Your task to perform on an android device: What's the weather? Image 0: 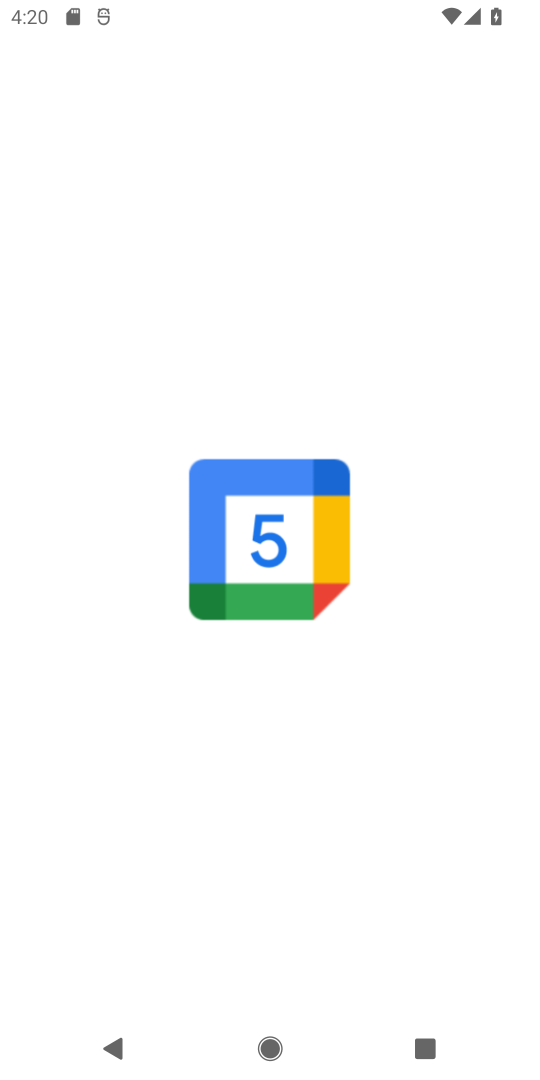
Step 0: press home button
Your task to perform on an android device: What's the weather? Image 1: 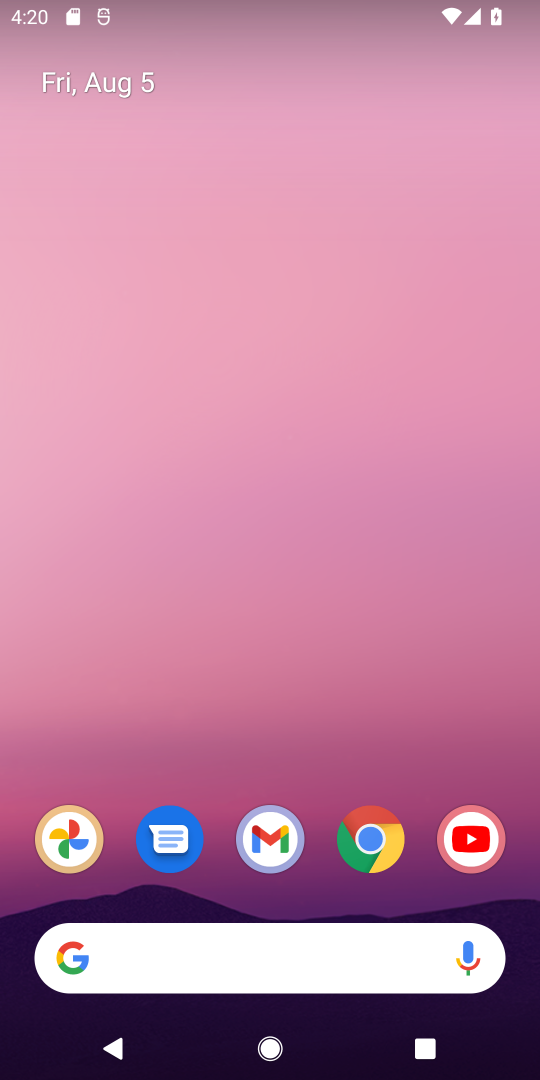
Step 1: drag from (304, 886) to (318, 197)
Your task to perform on an android device: What's the weather? Image 2: 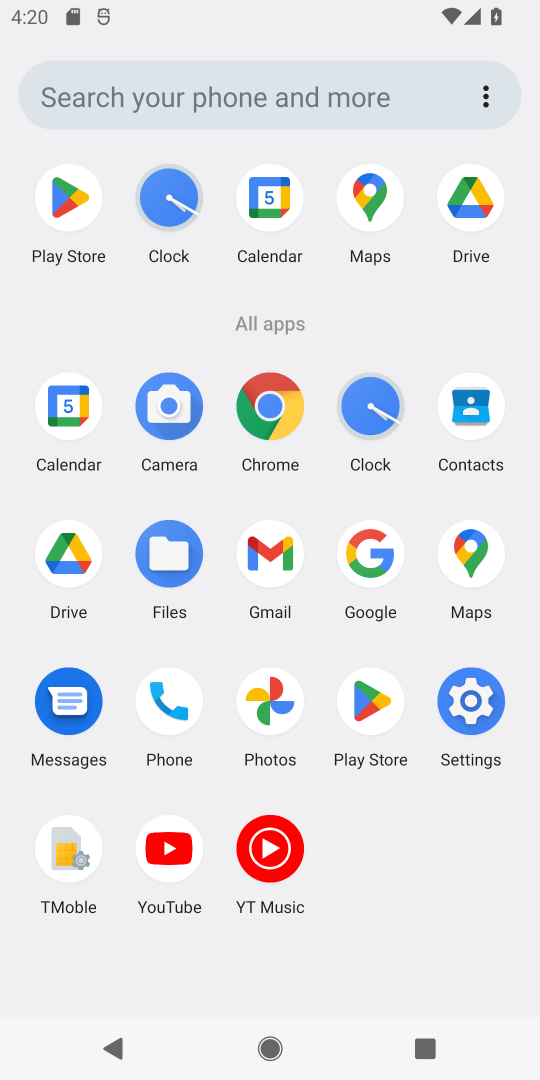
Step 2: click (381, 562)
Your task to perform on an android device: What's the weather? Image 3: 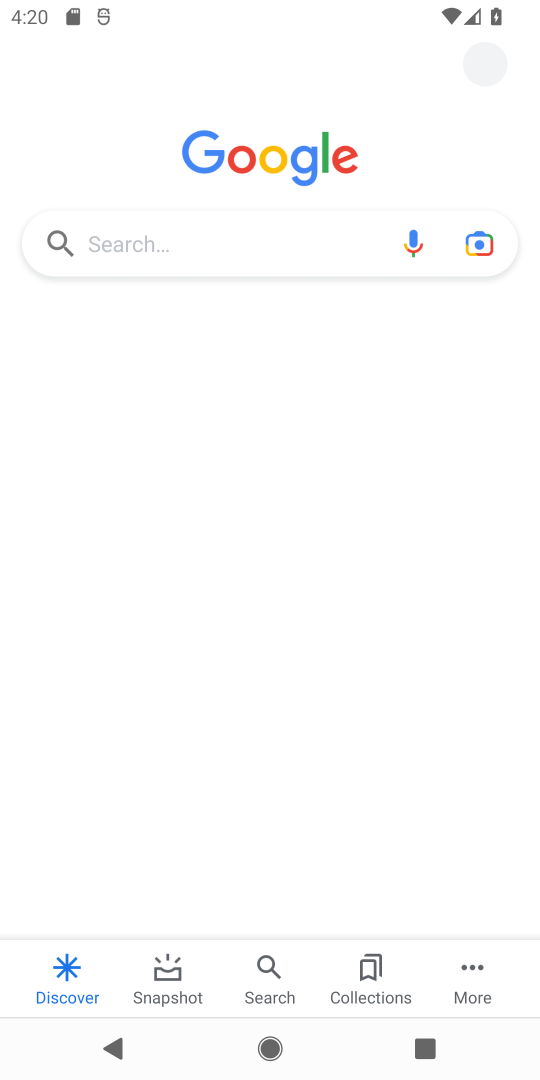
Step 3: click (234, 234)
Your task to perform on an android device: What's the weather? Image 4: 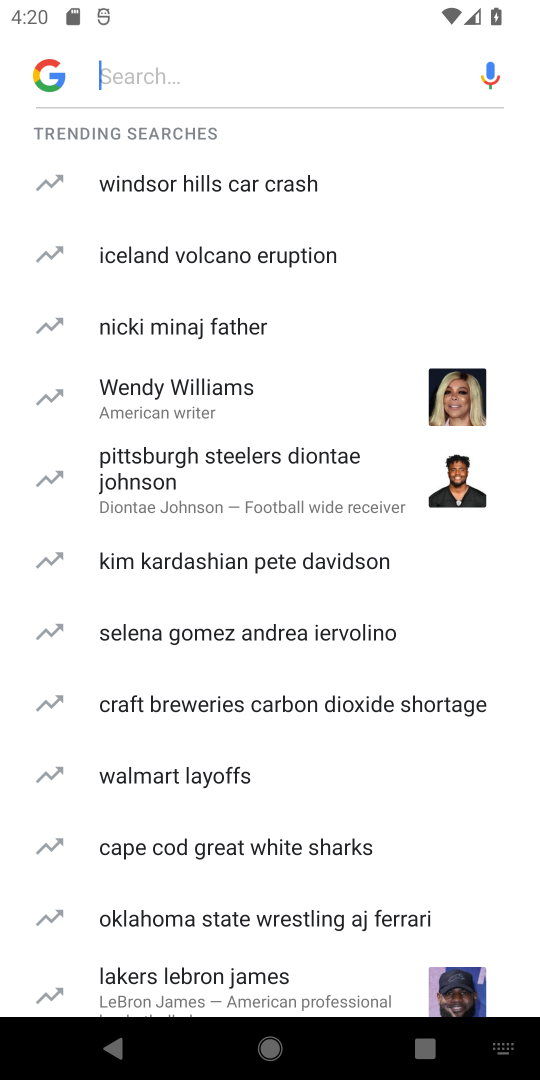
Step 4: type "weather"
Your task to perform on an android device: What's the weather? Image 5: 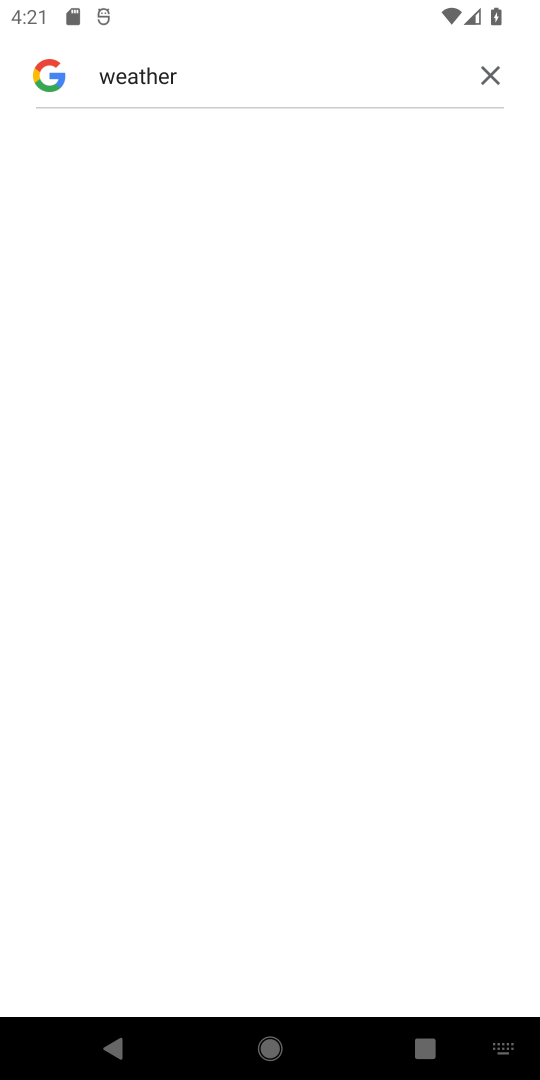
Step 5: click (292, 73)
Your task to perform on an android device: What's the weather? Image 6: 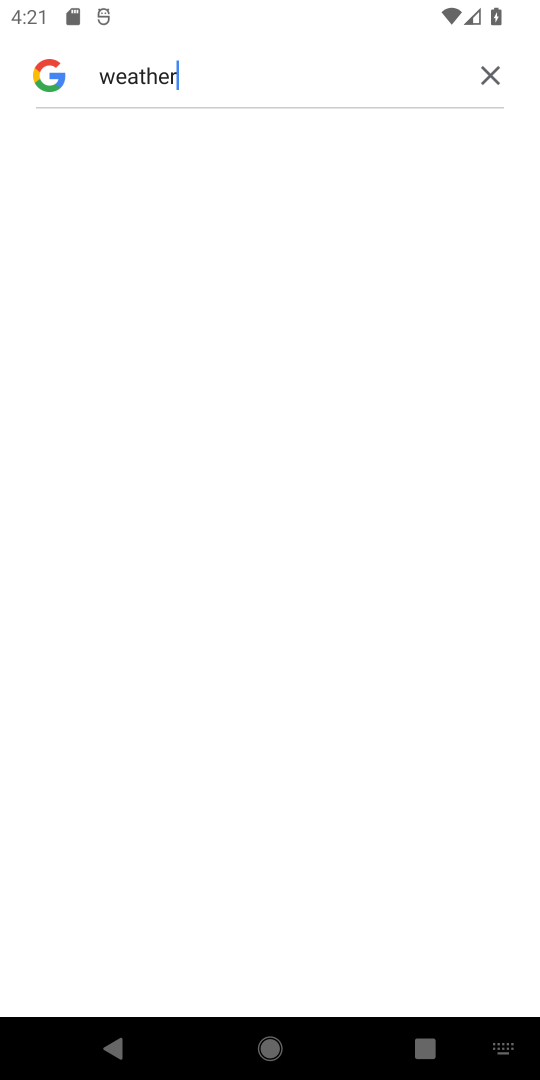
Step 6: task complete